Your task to perform on an android device: delete the emails in spam in the gmail app Image 0: 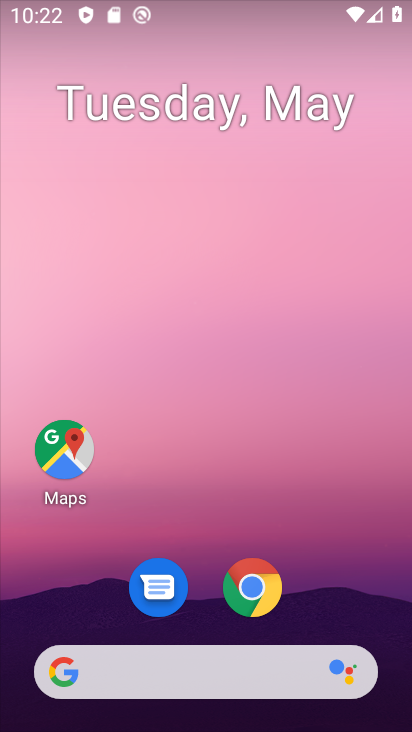
Step 0: drag from (333, 575) to (367, 187)
Your task to perform on an android device: delete the emails in spam in the gmail app Image 1: 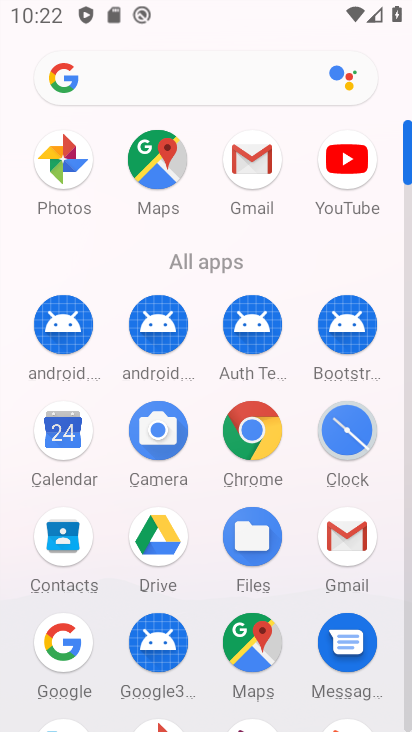
Step 1: click (336, 532)
Your task to perform on an android device: delete the emails in spam in the gmail app Image 2: 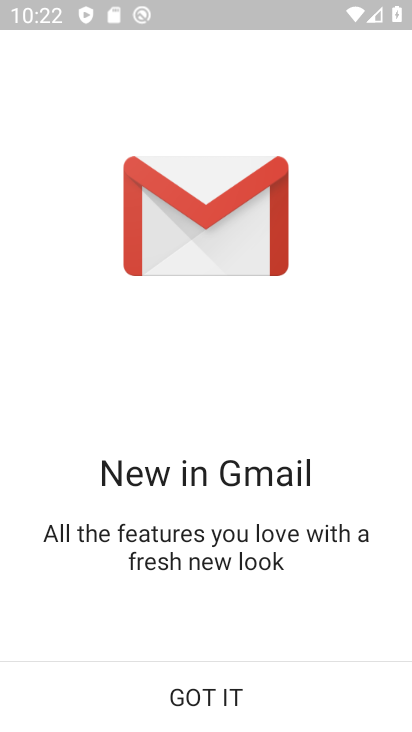
Step 2: click (256, 693)
Your task to perform on an android device: delete the emails in spam in the gmail app Image 3: 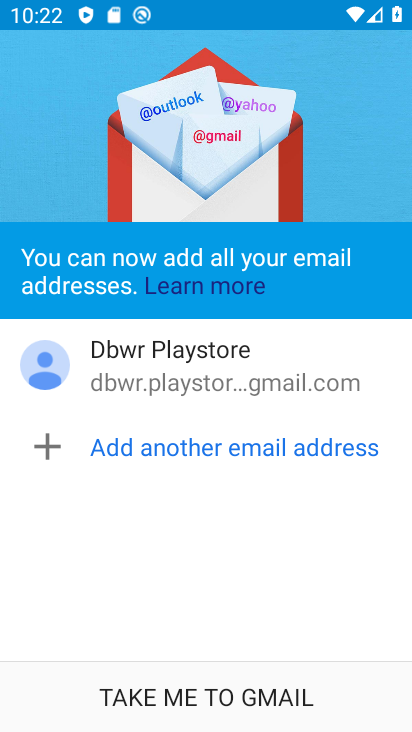
Step 3: click (256, 693)
Your task to perform on an android device: delete the emails in spam in the gmail app Image 4: 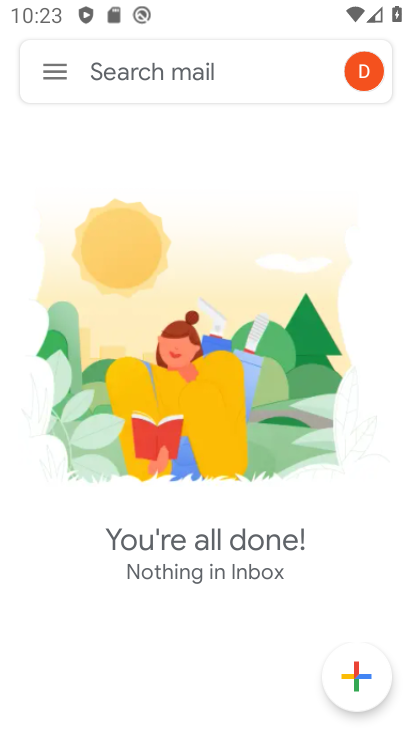
Step 4: click (55, 57)
Your task to perform on an android device: delete the emails in spam in the gmail app Image 5: 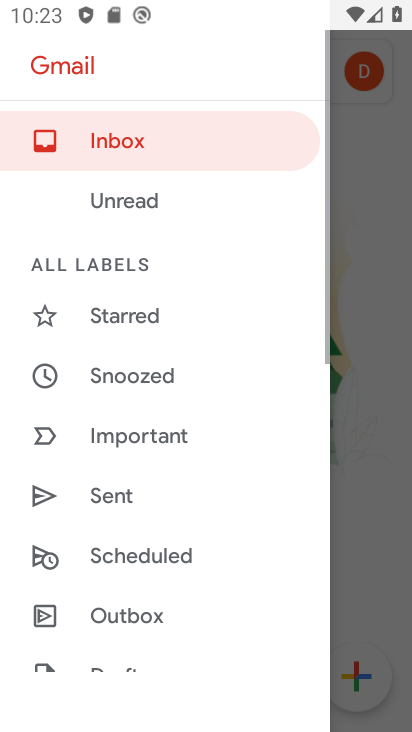
Step 5: drag from (165, 559) to (176, 238)
Your task to perform on an android device: delete the emails in spam in the gmail app Image 6: 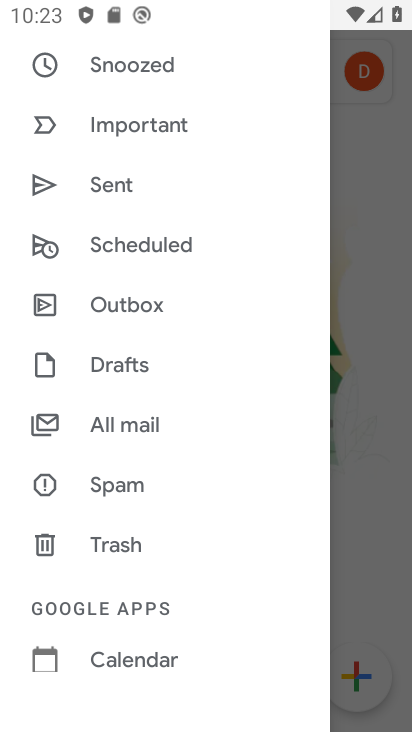
Step 6: drag from (169, 578) to (206, 275)
Your task to perform on an android device: delete the emails in spam in the gmail app Image 7: 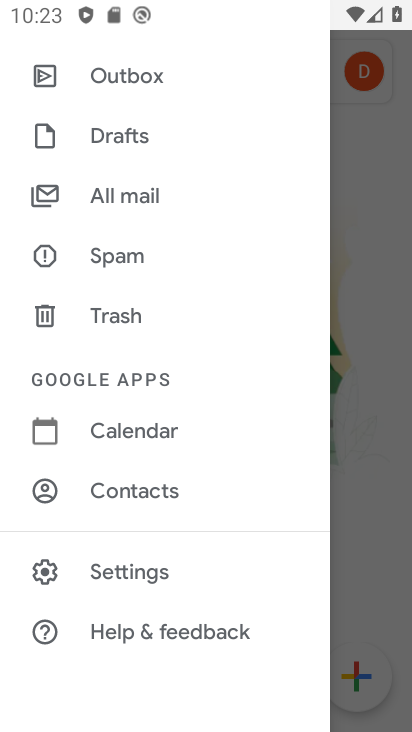
Step 7: click (144, 263)
Your task to perform on an android device: delete the emails in spam in the gmail app Image 8: 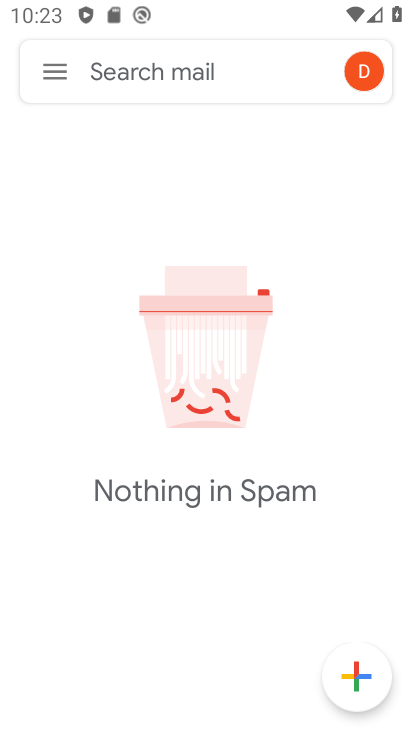
Step 8: click (43, 68)
Your task to perform on an android device: delete the emails in spam in the gmail app Image 9: 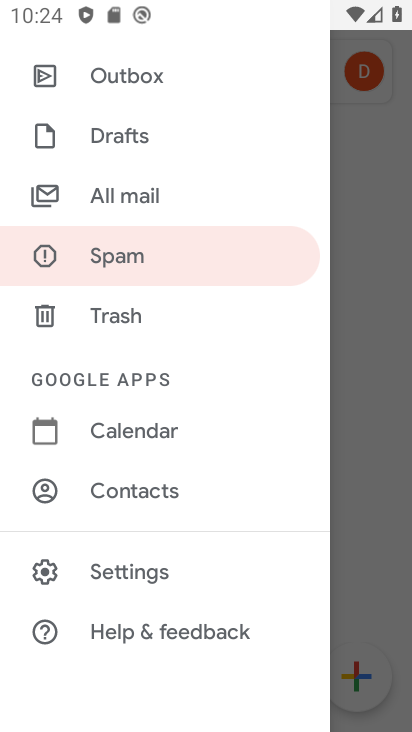
Step 9: click (360, 301)
Your task to perform on an android device: delete the emails in spam in the gmail app Image 10: 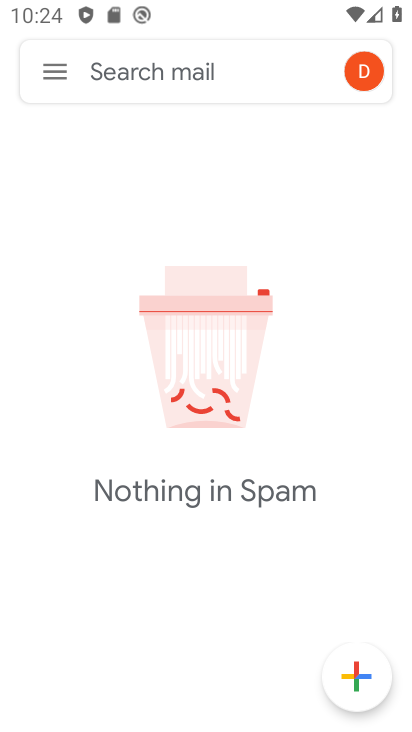
Step 10: task complete